Your task to perform on an android device: add a contact in the contacts app Image 0: 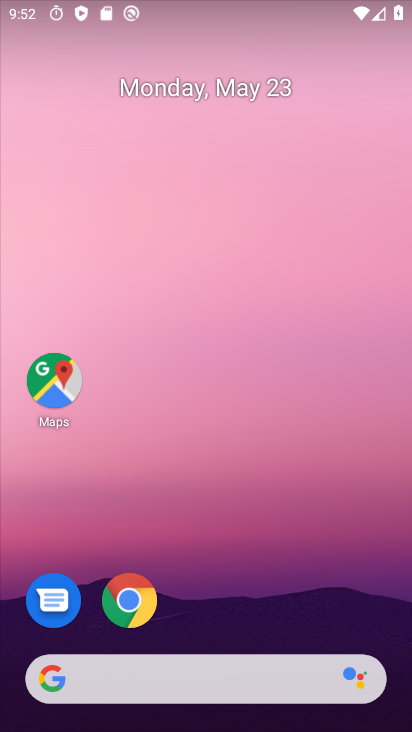
Step 0: drag from (300, 639) to (100, 18)
Your task to perform on an android device: add a contact in the contacts app Image 1: 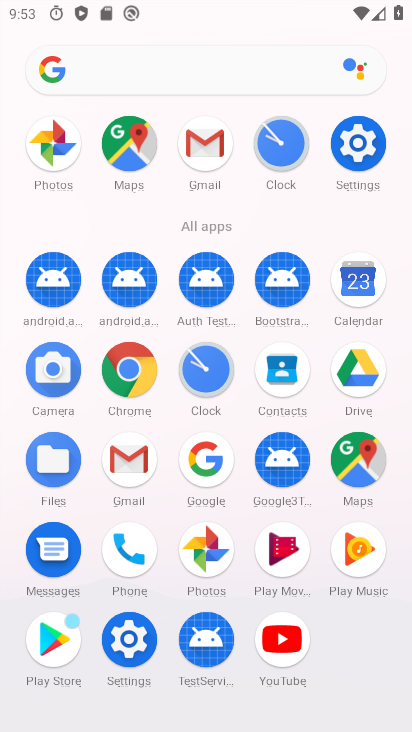
Step 1: click (278, 392)
Your task to perform on an android device: add a contact in the contacts app Image 2: 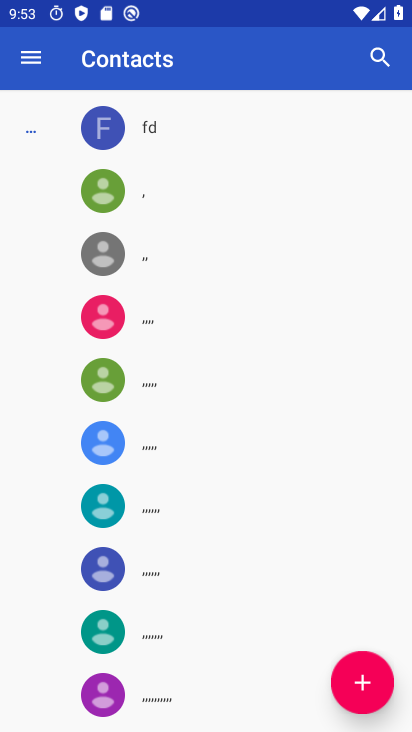
Step 2: click (376, 681)
Your task to perform on an android device: add a contact in the contacts app Image 3: 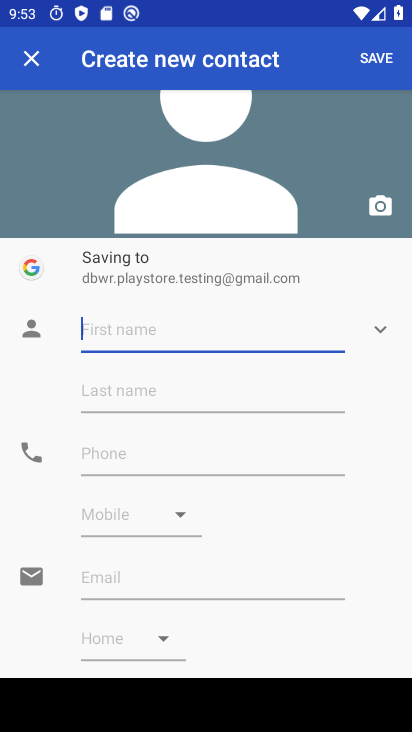
Step 3: click (216, 333)
Your task to perform on an android device: add a contact in the contacts app Image 4: 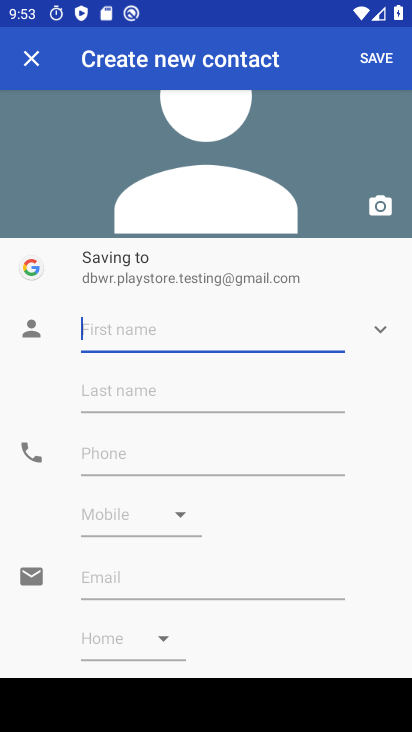
Step 4: type "vhhjvhbk"
Your task to perform on an android device: add a contact in the contacts app Image 5: 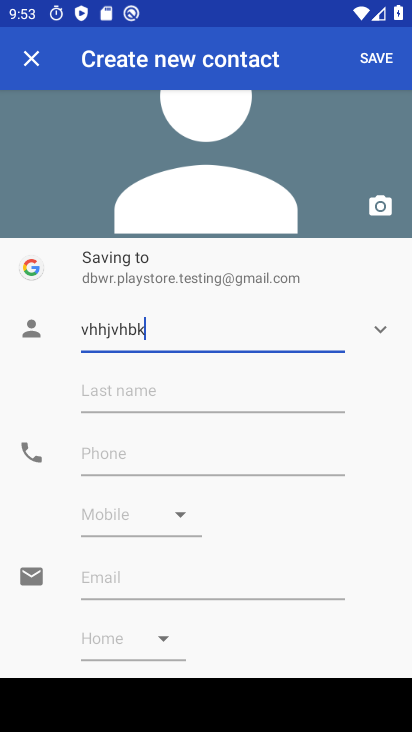
Step 5: click (165, 457)
Your task to perform on an android device: add a contact in the contacts app Image 6: 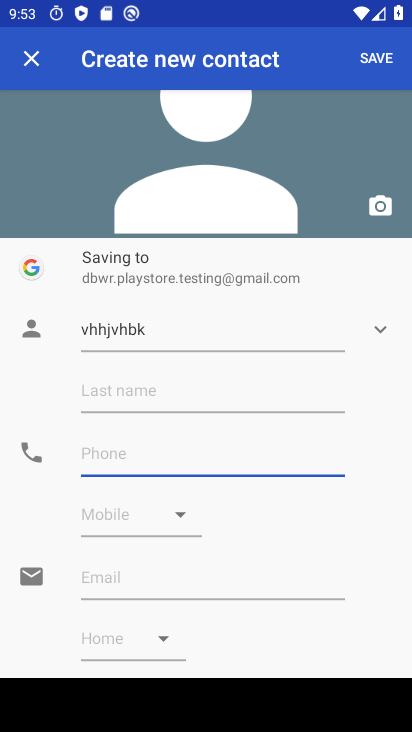
Step 6: type "t78t87t79y99"
Your task to perform on an android device: add a contact in the contacts app Image 7: 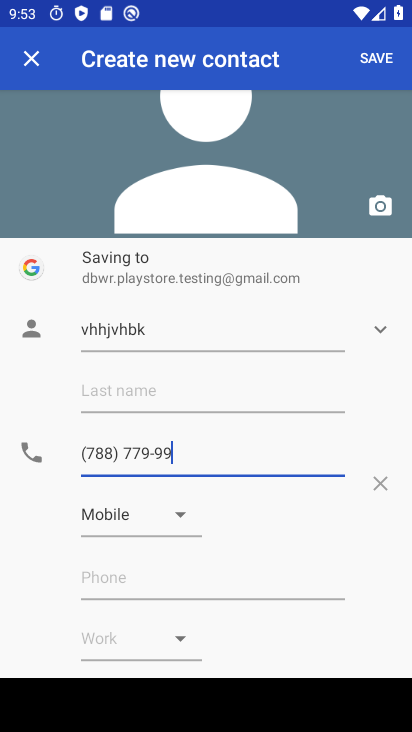
Step 7: click (359, 51)
Your task to perform on an android device: add a contact in the contacts app Image 8: 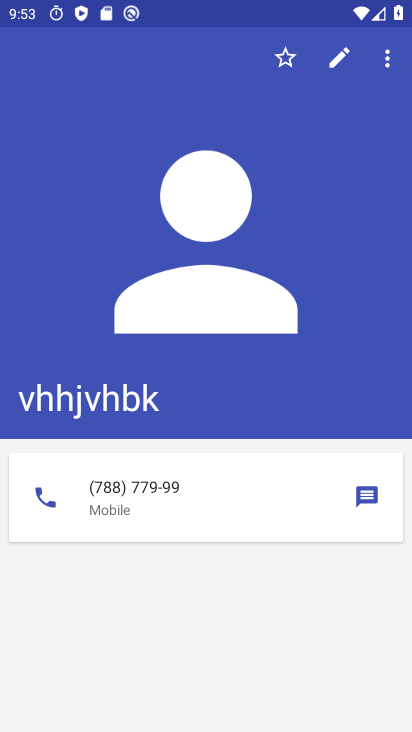
Step 8: task complete